Your task to perform on an android device: turn on sleep mode Image 0: 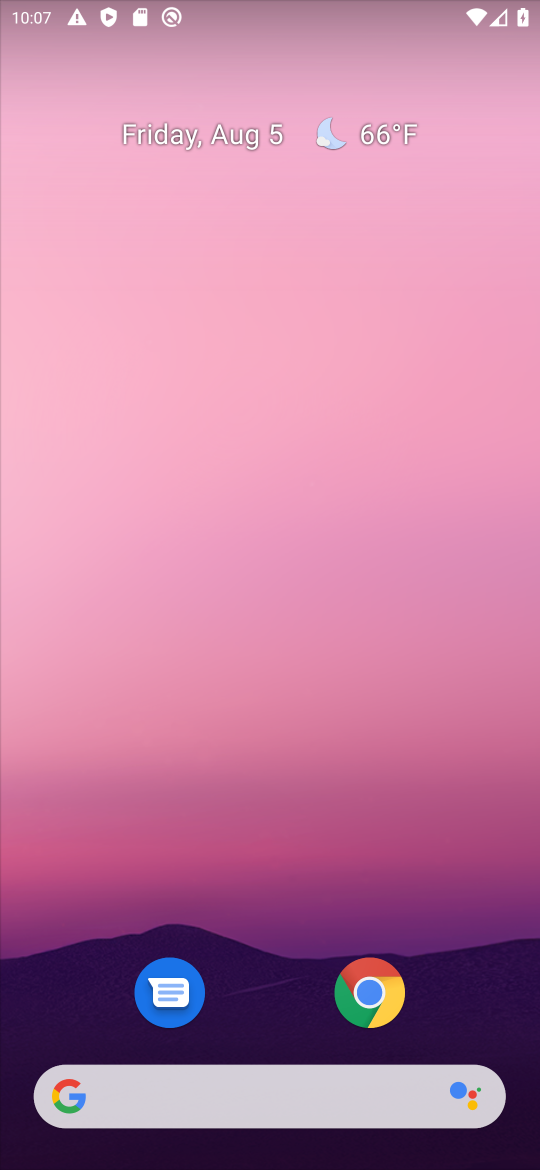
Step 0: drag from (287, 1128) to (382, 167)
Your task to perform on an android device: turn on sleep mode Image 1: 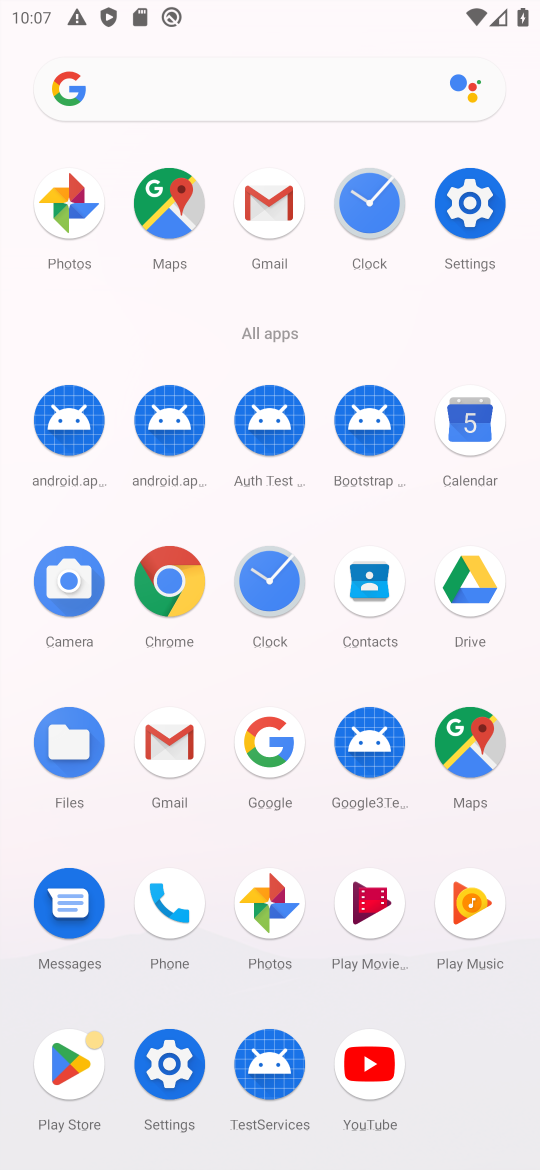
Step 1: click (489, 214)
Your task to perform on an android device: turn on sleep mode Image 2: 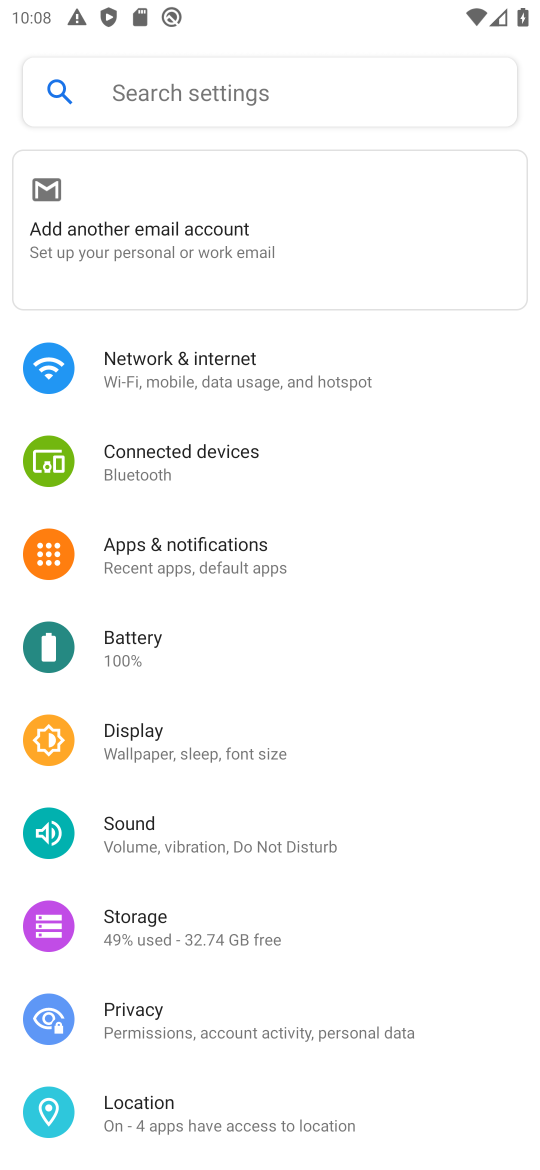
Step 2: drag from (238, 795) to (256, 577)
Your task to perform on an android device: turn on sleep mode Image 3: 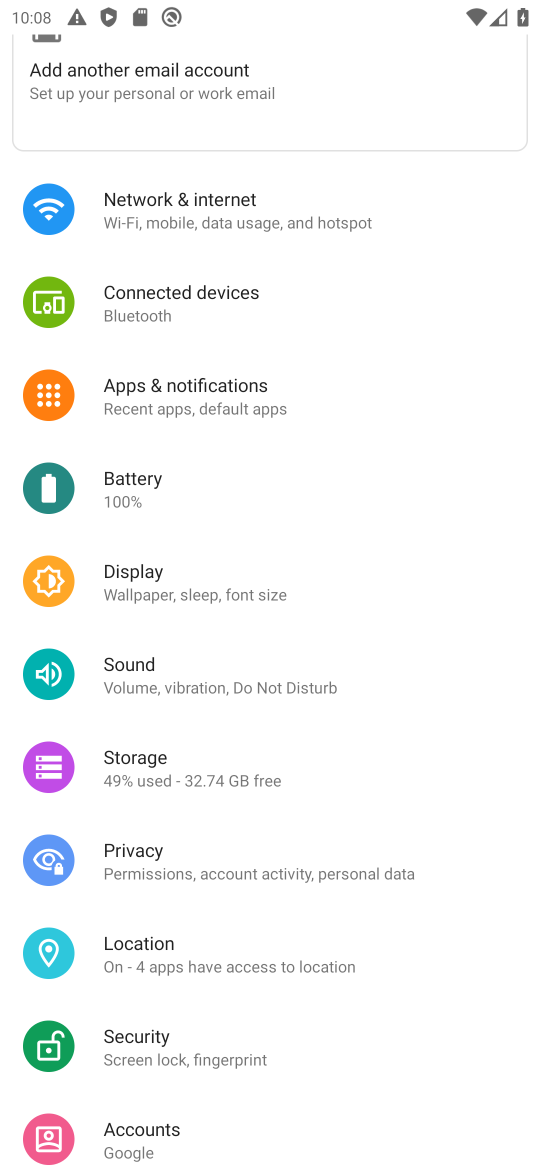
Step 3: click (199, 586)
Your task to perform on an android device: turn on sleep mode Image 4: 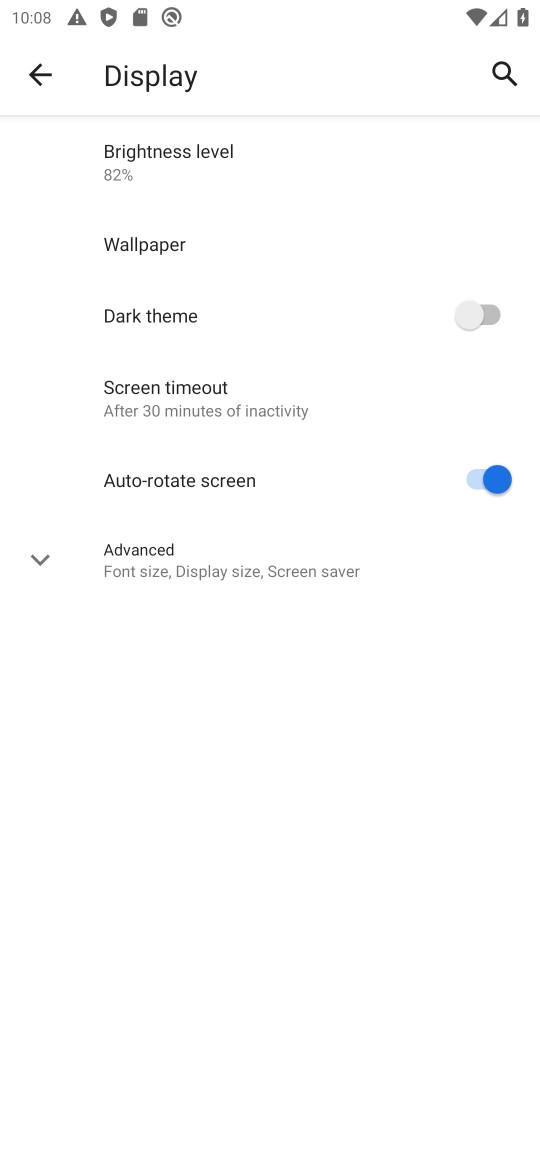
Step 4: click (218, 556)
Your task to perform on an android device: turn on sleep mode Image 5: 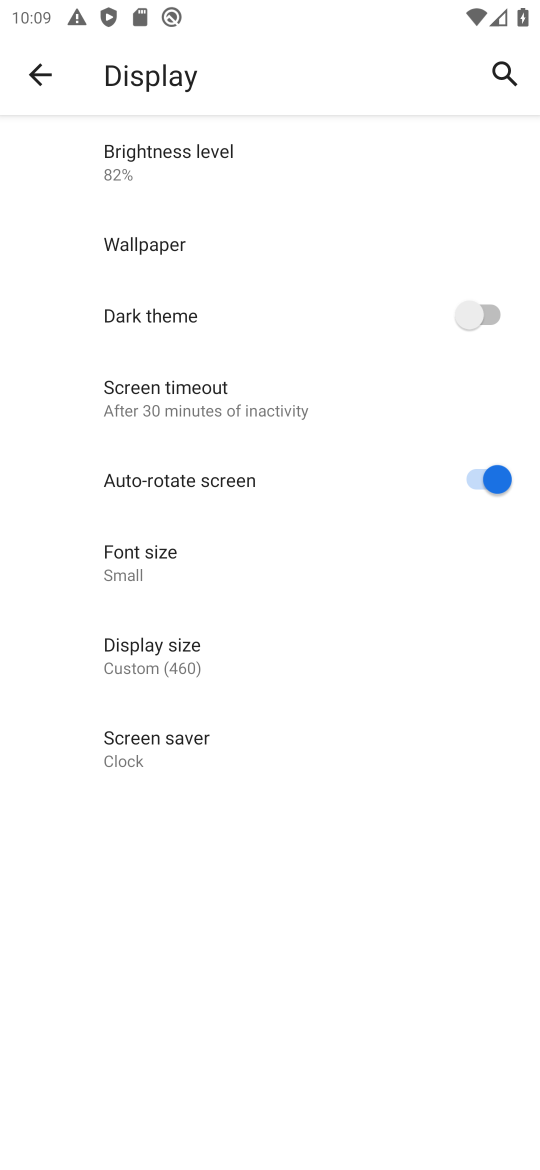
Step 5: task complete